Your task to perform on an android device: Show me recent news Image 0: 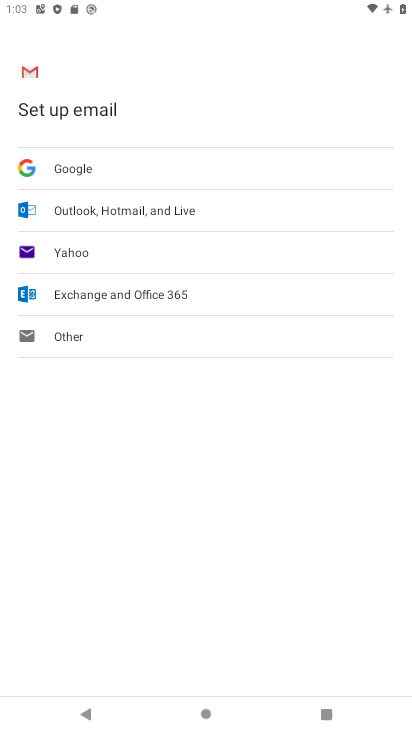
Step 0: press home button
Your task to perform on an android device: Show me recent news Image 1: 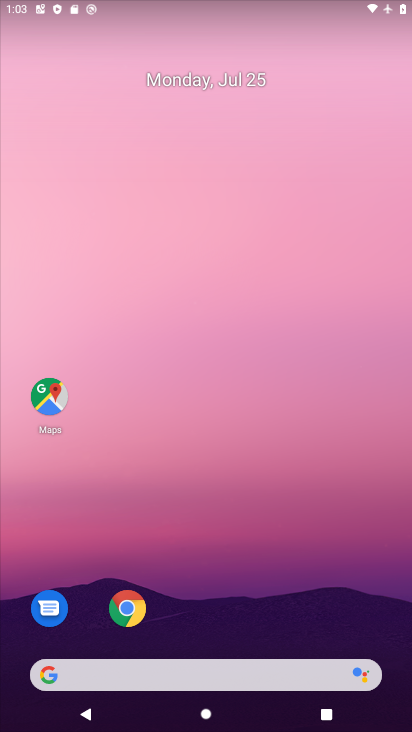
Step 1: drag from (228, 649) to (311, 236)
Your task to perform on an android device: Show me recent news Image 2: 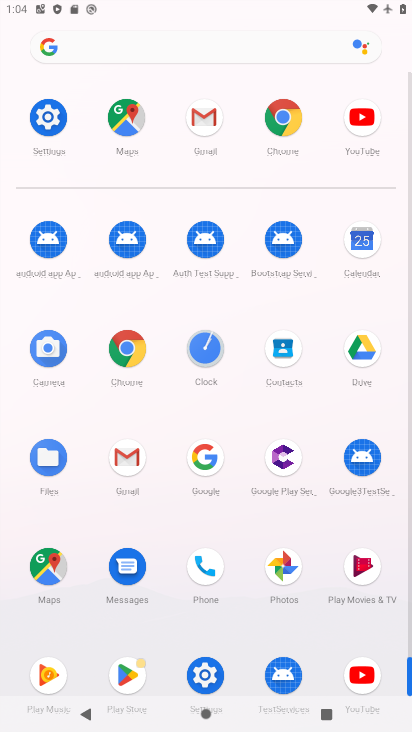
Step 2: click (220, 477)
Your task to perform on an android device: Show me recent news Image 3: 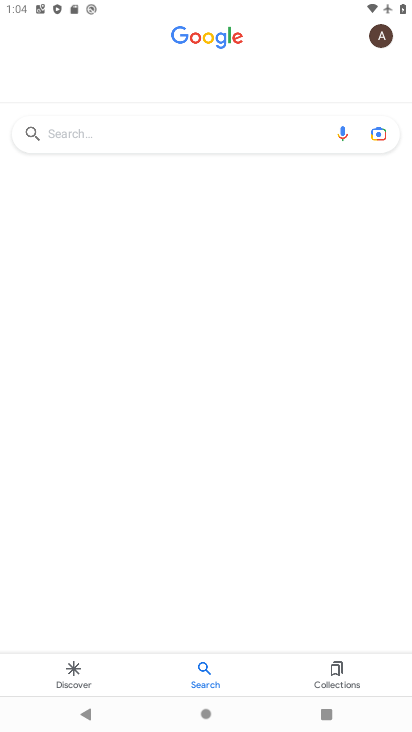
Step 3: click (155, 147)
Your task to perform on an android device: Show me recent news Image 4: 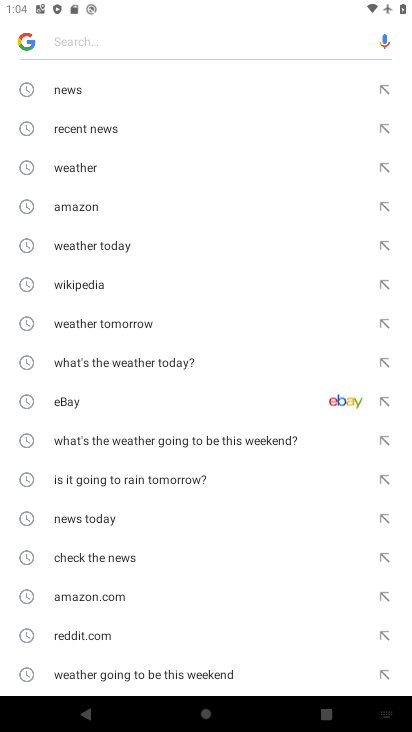
Step 4: click (134, 134)
Your task to perform on an android device: Show me recent news Image 5: 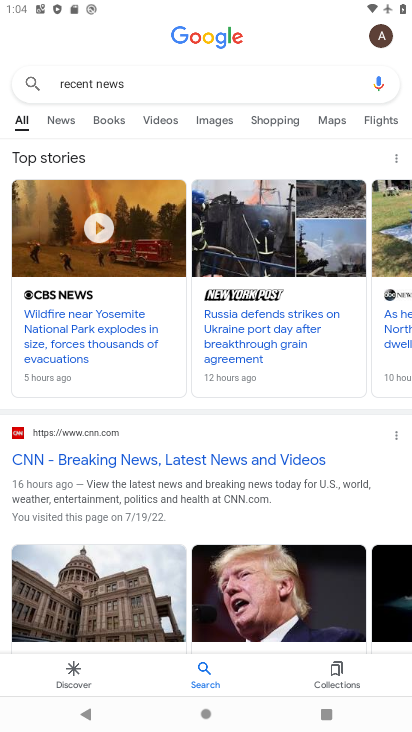
Step 5: click (62, 127)
Your task to perform on an android device: Show me recent news Image 6: 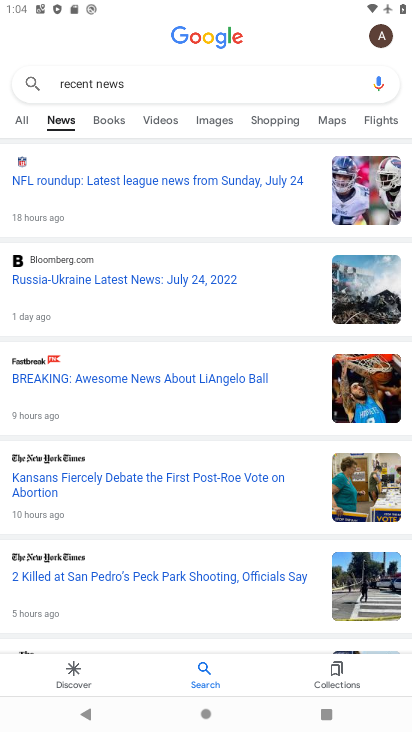
Step 6: task complete